Your task to perform on an android device: Go to Yahoo.com Image 0: 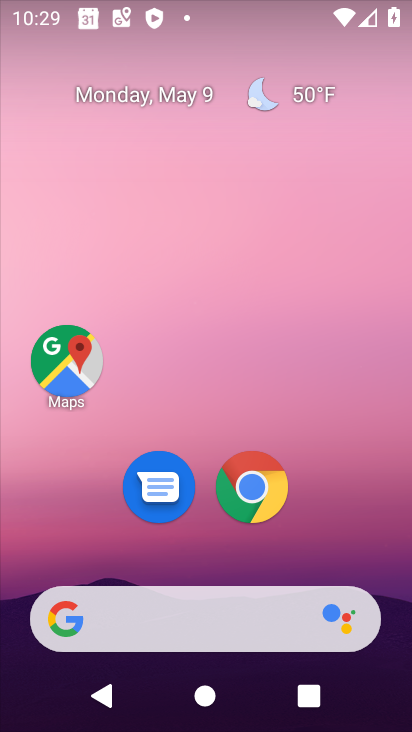
Step 0: click (249, 486)
Your task to perform on an android device: Go to Yahoo.com Image 1: 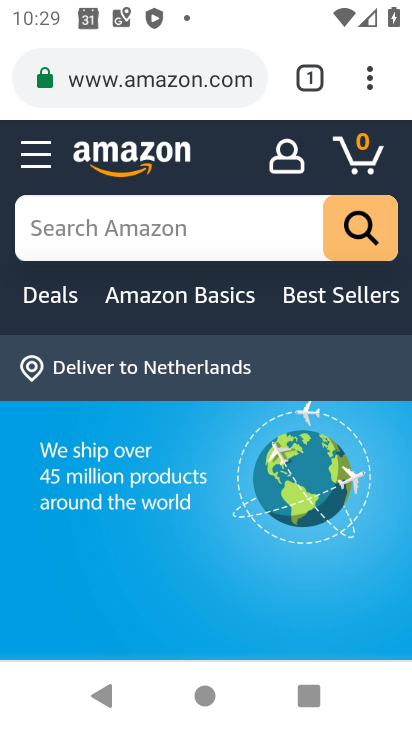
Step 1: click (305, 73)
Your task to perform on an android device: Go to Yahoo.com Image 2: 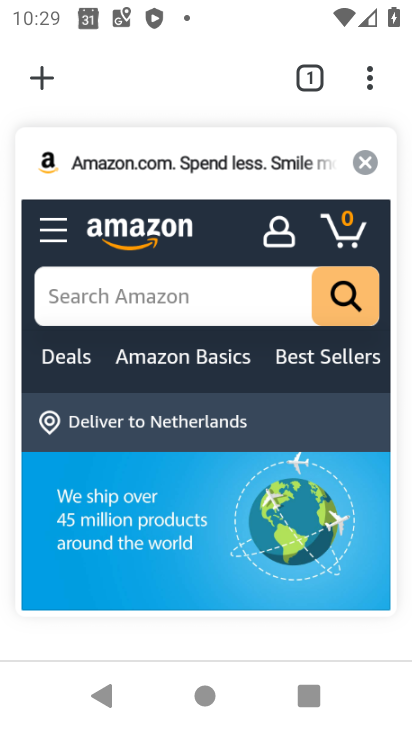
Step 2: click (361, 155)
Your task to perform on an android device: Go to Yahoo.com Image 3: 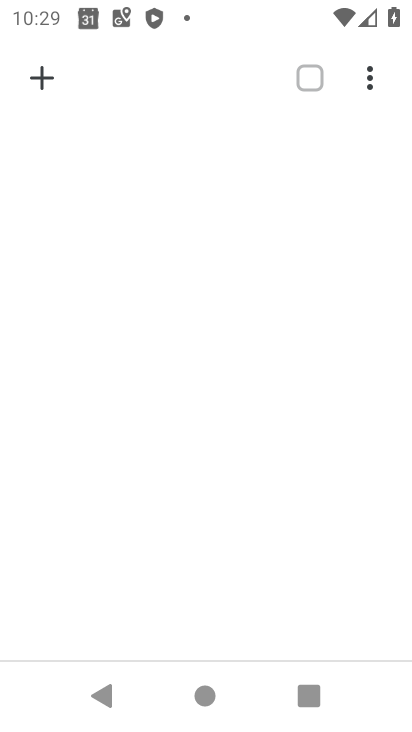
Step 3: click (44, 78)
Your task to perform on an android device: Go to Yahoo.com Image 4: 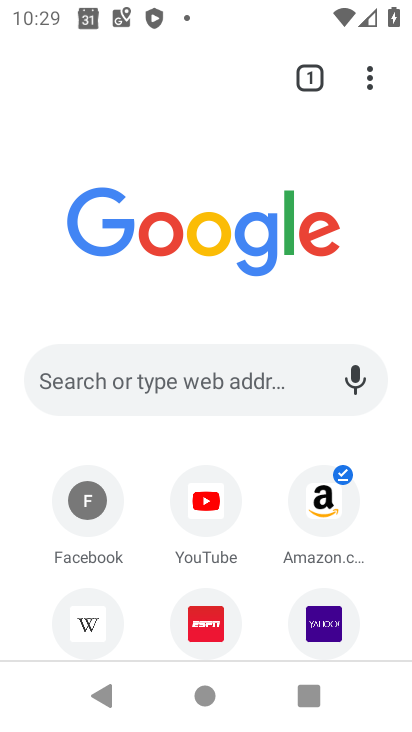
Step 4: drag from (155, 622) to (276, 213)
Your task to perform on an android device: Go to Yahoo.com Image 5: 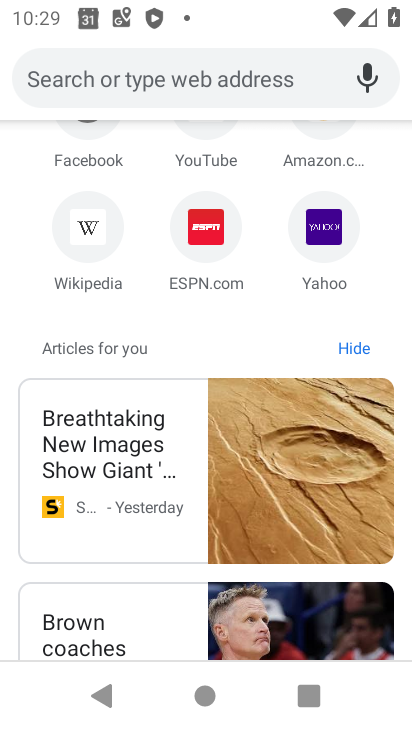
Step 5: click (332, 217)
Your task to perform on an android device: Go to Yahoo.com Image 6: 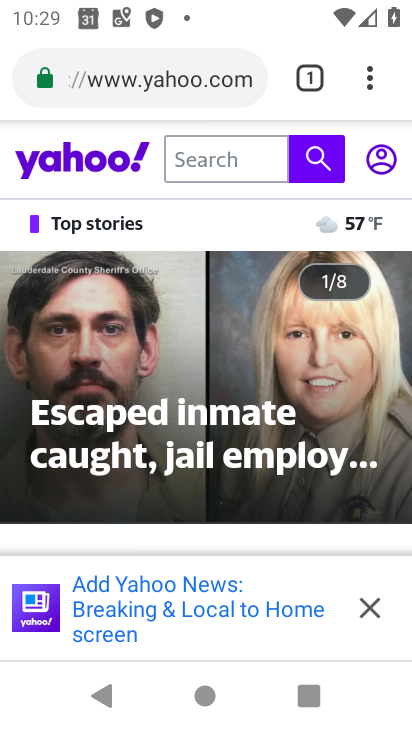
Step 6: click (373, 604)
Your task to perform on an android device: Go to Yahoo.com Image 7: 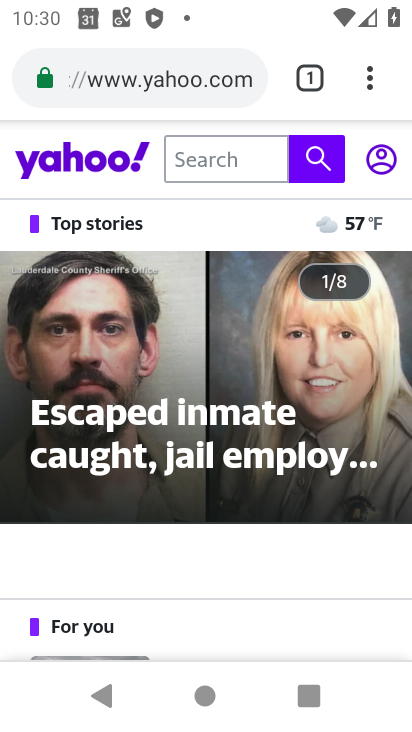
Step 7: task complete